Your task to perform on an android device: What's on my calendar tomorrow? Image 0: 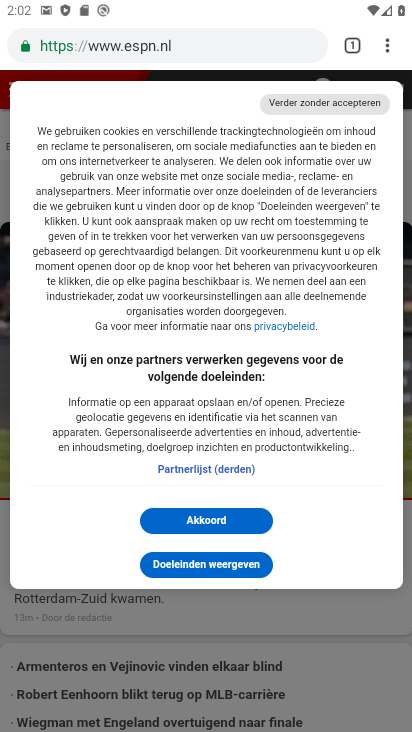
Step 0: press back button
Your task to perform on an android device: What's on my calendar tomorrow? Image 1: 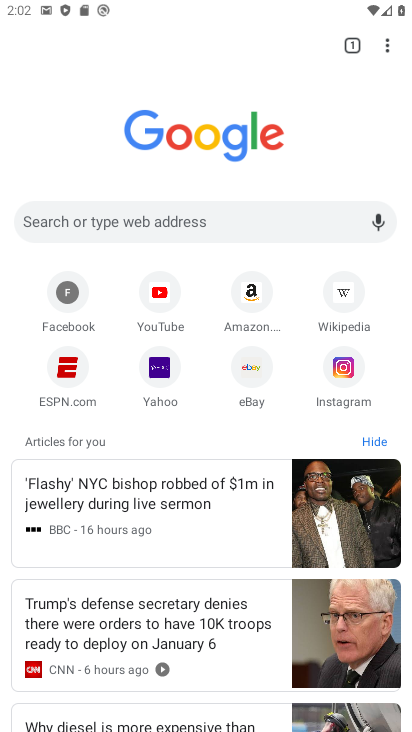
Step 1: press back button
Your task to perform on an android device: What's on my calendar tomorrow? Image 2: 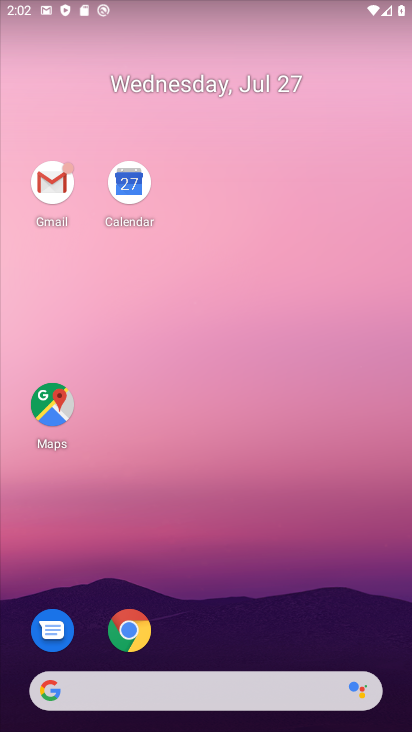
Step 2: click (131, 197)
Your task to perform on an android device: What's on my calendar tomorrow? Image 3: 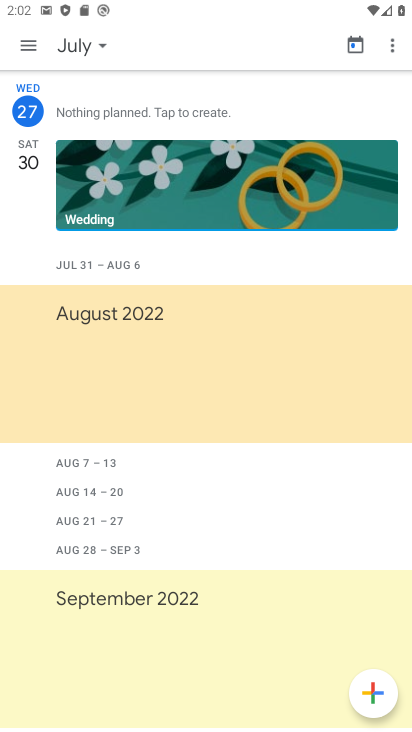
Step 3: drag from (388, 227) to (0, 40)
Your task to perform on an android device: What's on my calendar tomorrow? Image 4: 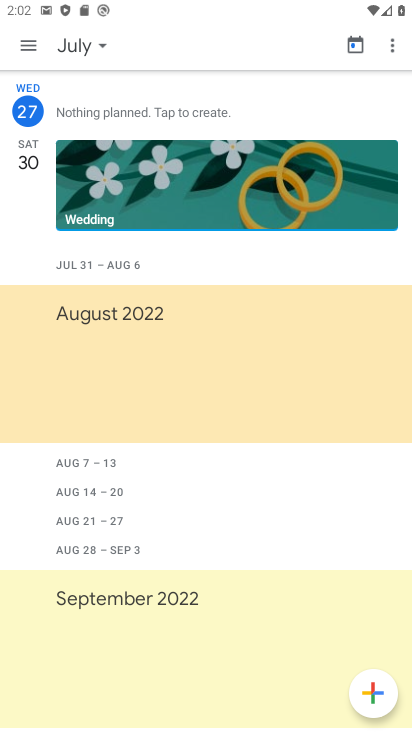
Step 4: click (76, 55)
Your task to perform on an android device: What's on my calendar tomorrow? Image 5: 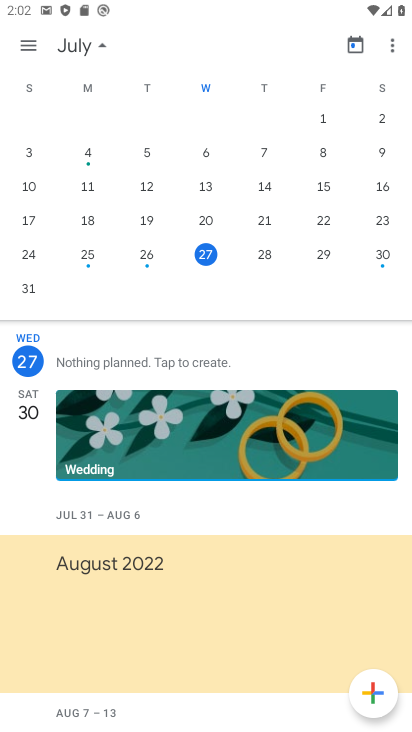
Step 5: click (264, 255)
Your task to perform on an android device: What's on my calendar tomorrow? Image 6: 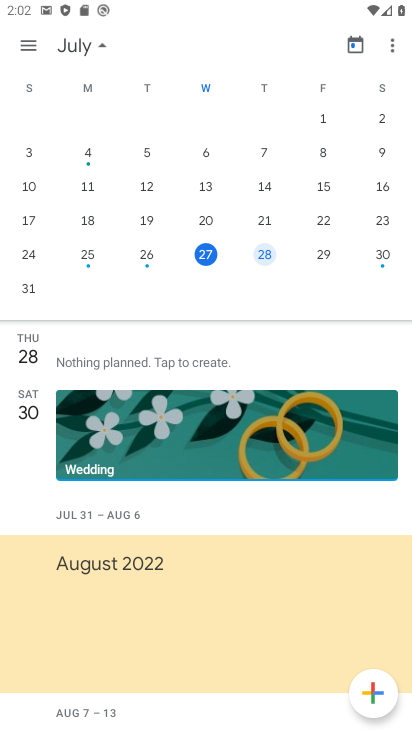
Step 6: task complete